Your task to perform on an android device: turn off translation in the chrome app Image 0: 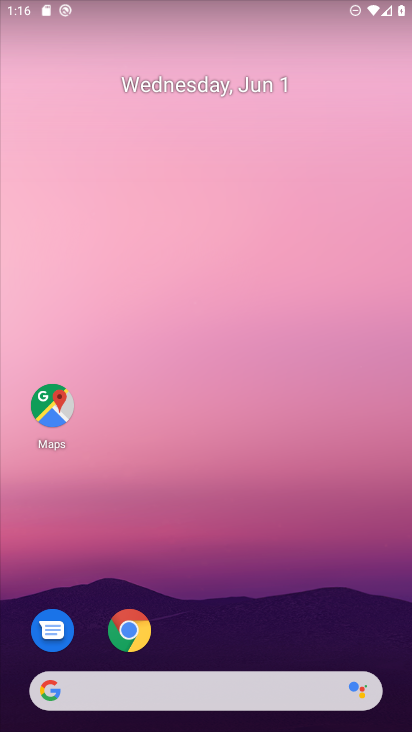
Step 0: press home button
Your task to perform on an android device: turn off translation in the chrome app Image 1: 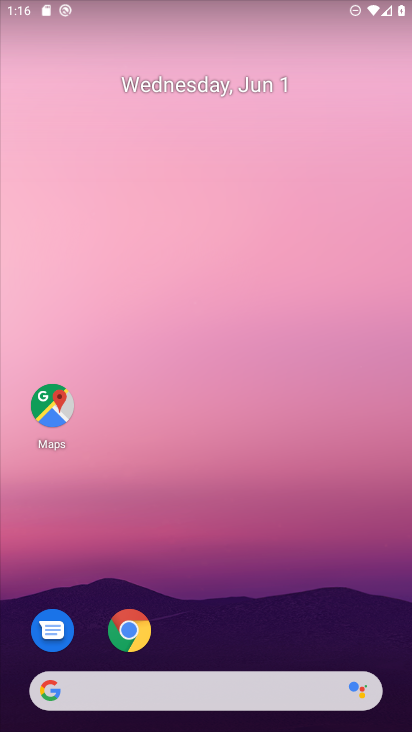
Step 1: click (125, 636)
Your task to perform on an android device: turn off translation in the chrome app Image 2: 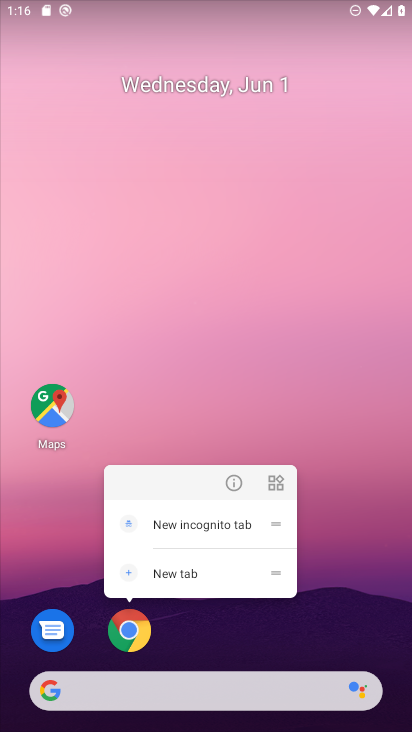
Step 2: click (124, 637)
Your task to perform on an android device: turn off translation in the chrome app Image 3: 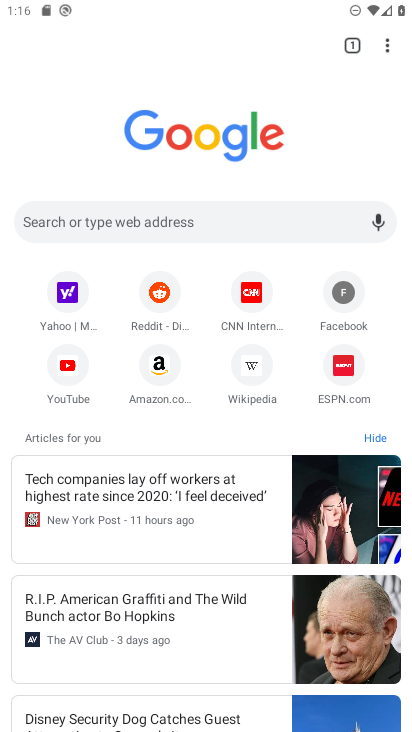
Step 3: drag from (392, 52) to (226, 393)
Your task to perform on an android device: turn off translation in the chrome app Image 4: 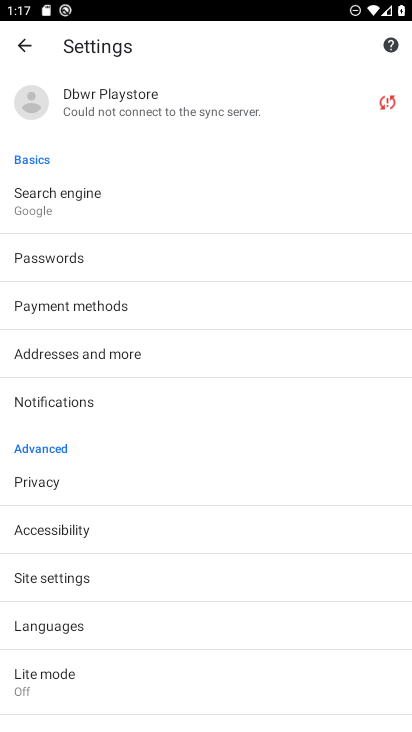
Step 4: click (48, 629)
Your task to perform on an android device: turn off translation in the chrome app Image 5: 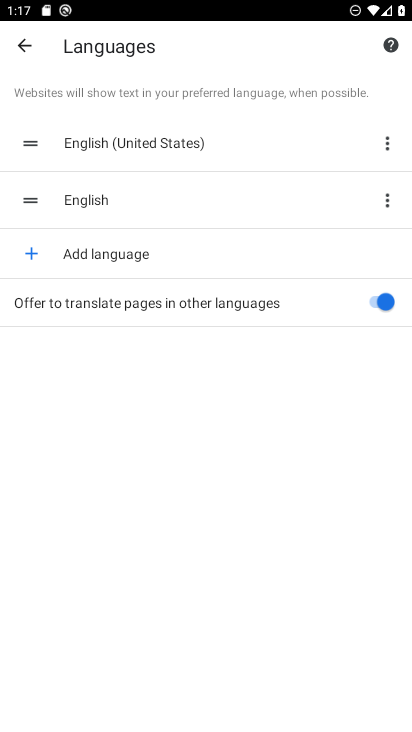
Step 5: click (384, 302)
Your task to perform on an android device: turn off translation in the chrome app Image 6: 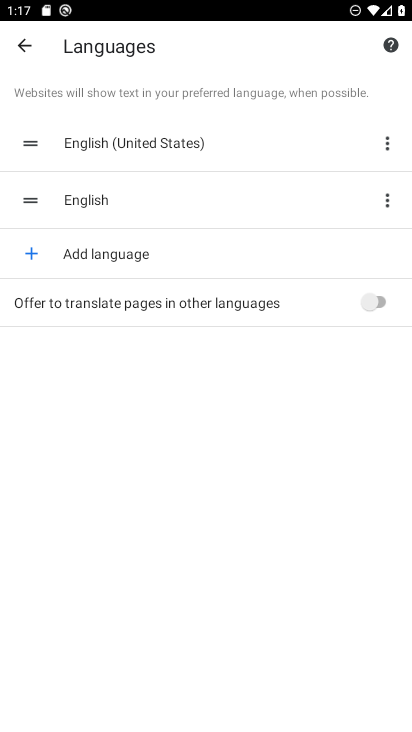
Step 6: task complete